Your task to perform on an android device: Open Google Chrome Image 0: 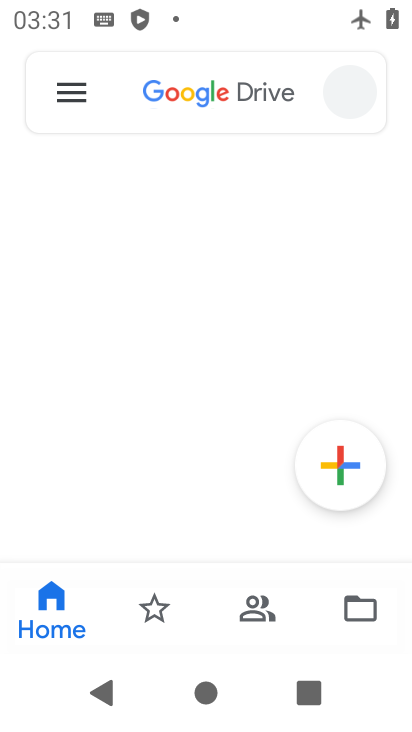
Step 0: click (254, 538)
Your task to perform on an android device: Open Google Chrome Image 1: 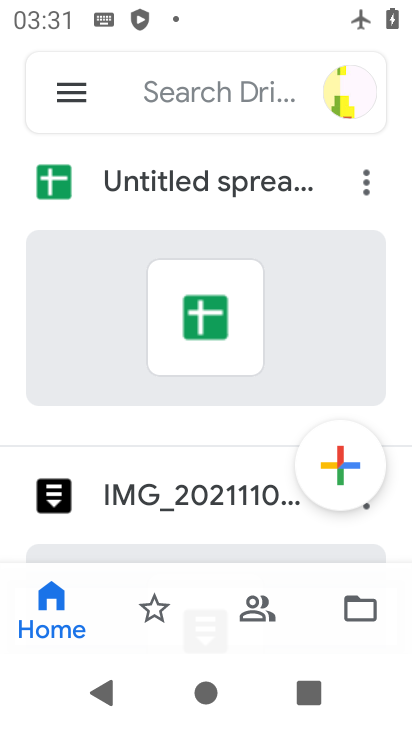
Step 1: press home button
Your task to perform on an android device: Open Google Chrome Image 2: 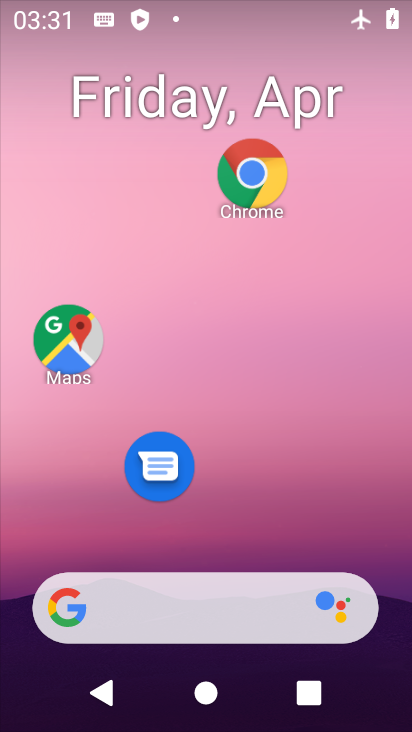
Step 2: click (269, 196)
Your task to perform on an android device: Open Google Chrome Image 3: 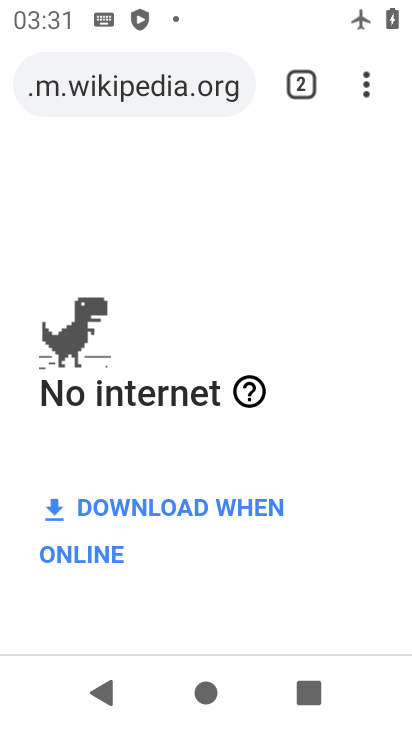
Step 3: task complete